Your task to perform on an android device: delete browsing data in the chrome app Image 0: 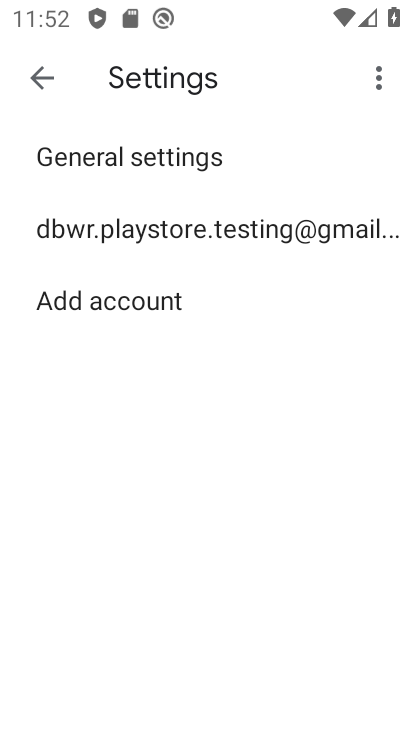
Step 0: press home button
Your task to perform on an android device: delete browsing data in the chrome app Image 1: 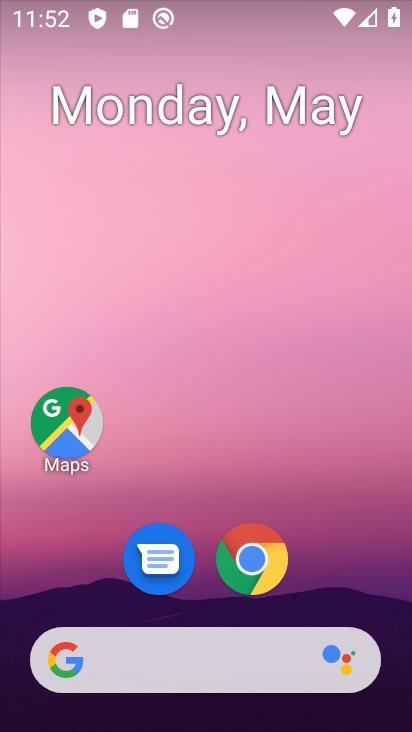
Step 1: click (263, 584)
Your task to perform on an android device: delete browsing data in the chrome app Image 2: 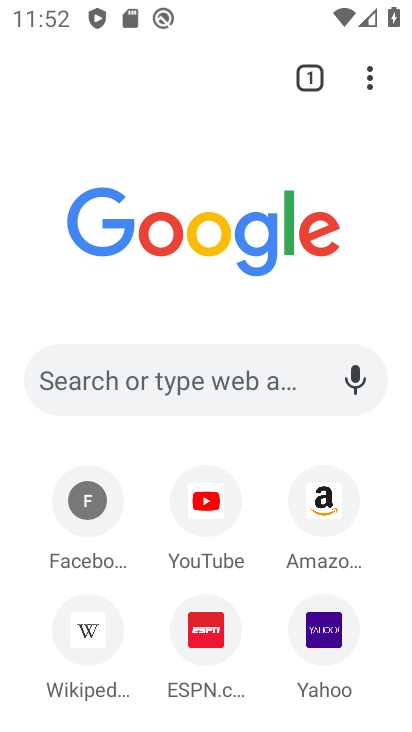
Step 2: drag from (379, 80) to (241, 630)
Your task to perform on an android device: delete browsing data in the chrome app Image 3: 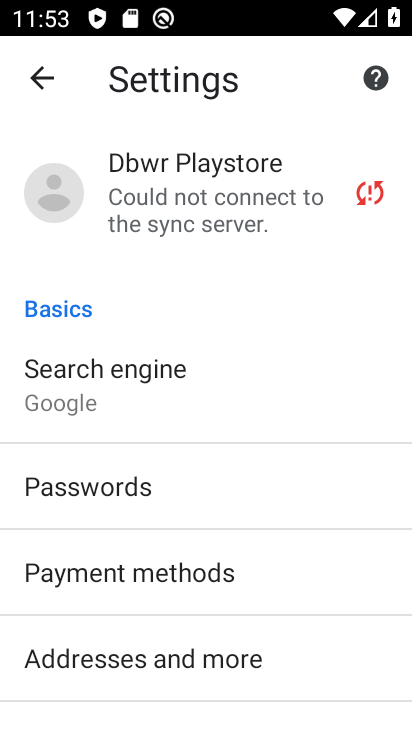
Step 3: drag from (207, 676) to (300, 326)
Your task to perform on an android device: delete browsing data in the chrome app Image 4: 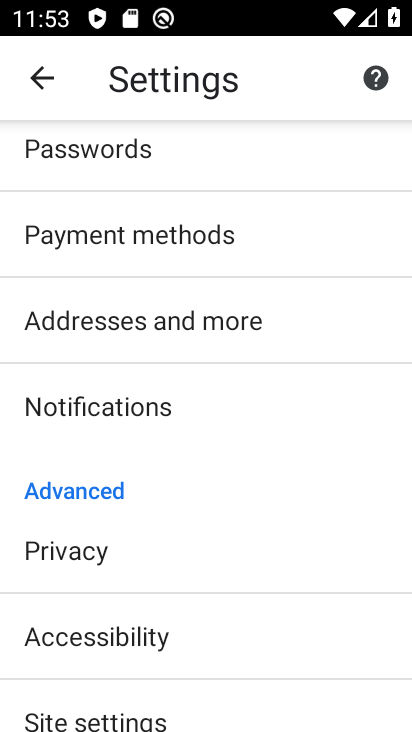
Step 4: click (167, 566)
Your task to perform on an android device: delete browsing data in the chrome app Image 5: 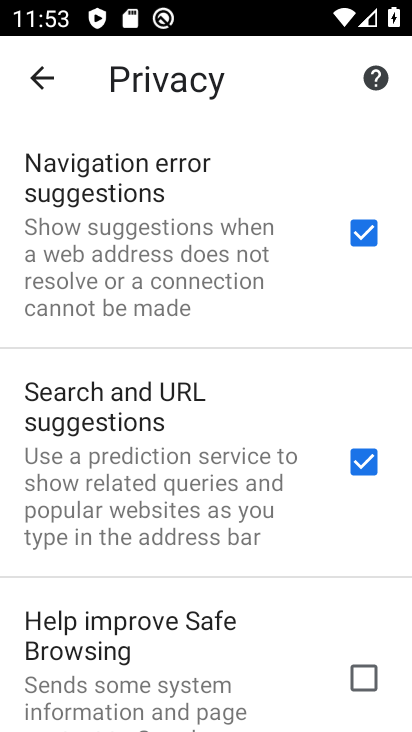
Step 5: drag from (170, 701) to (307, 237)
Your task to perform on an android device: delete browsing data in the chrome app Image 6: 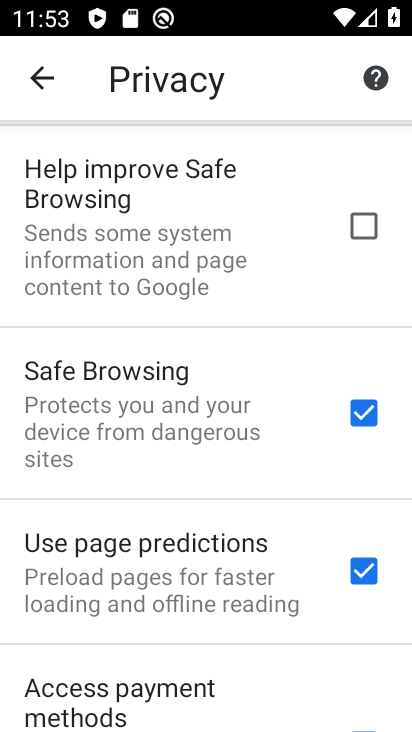
Step 6: drag from (255, 691) to (358, 195)
Your task to perform on an android device: delete browsing data in the chrome app Image 7: 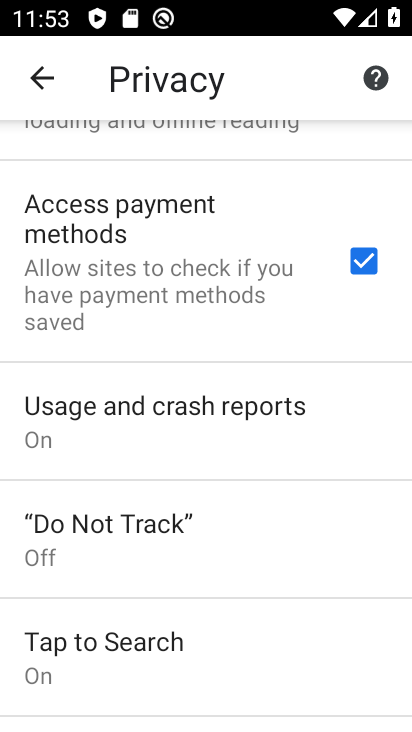
Step 7: drag from (110, 684) to (227, 195)
Your task to perform on an android device: delete browsing data in the chrome app Image 8: 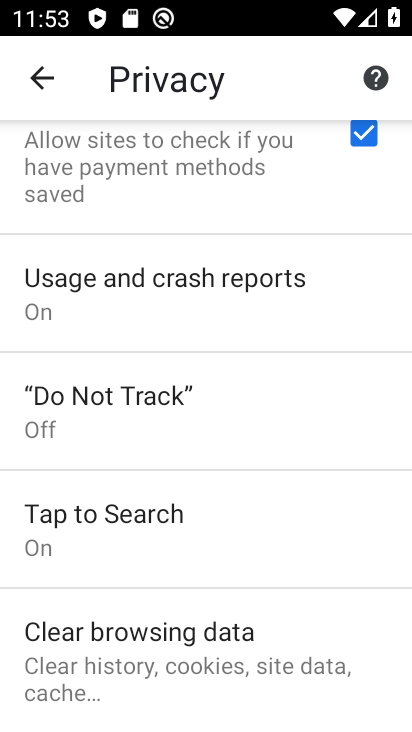
Step 8: click (153, 681)
Your task to perform on an android device: delete browsing data in the chrome app Image 9: 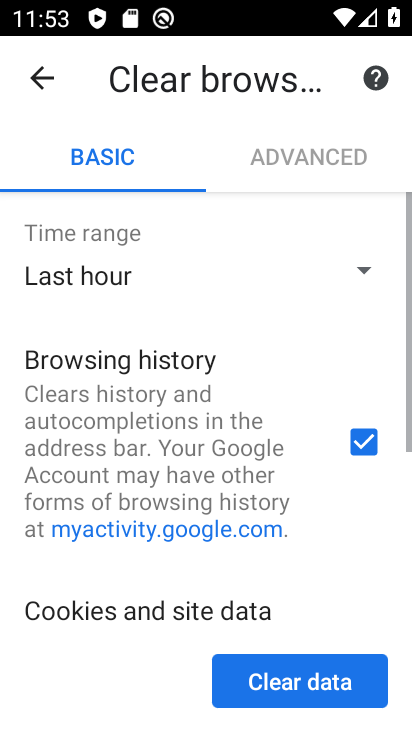
Step 9: drag from (158, 522) to (293, 135)
Your task to perform on an android device: delete browsing data in the chrome app Image 10: 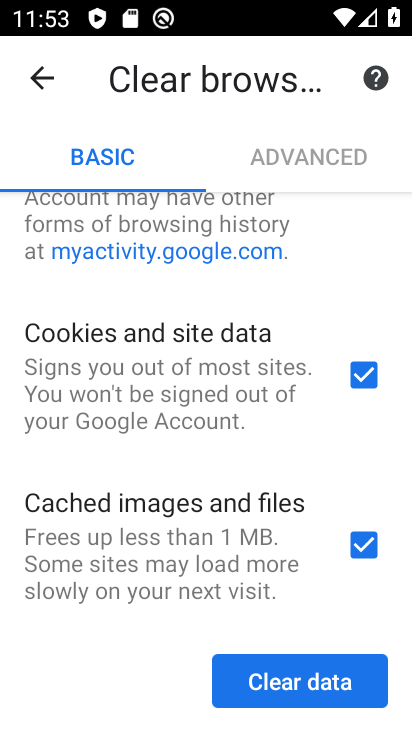
Step 10: drag from (185, 559) to (279, 143)
Your task to perform on an android device: delete browsing data in the chrome app Image 11: 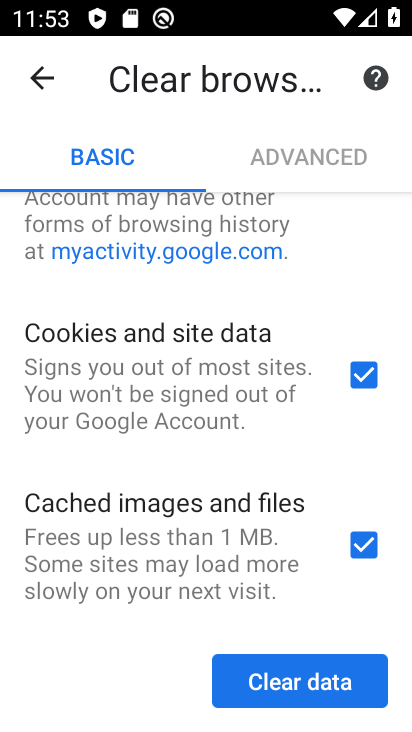
Step 11: click (267, 690)
Your task to perform on an android device: delete browsing data in the chrome app Image 12: 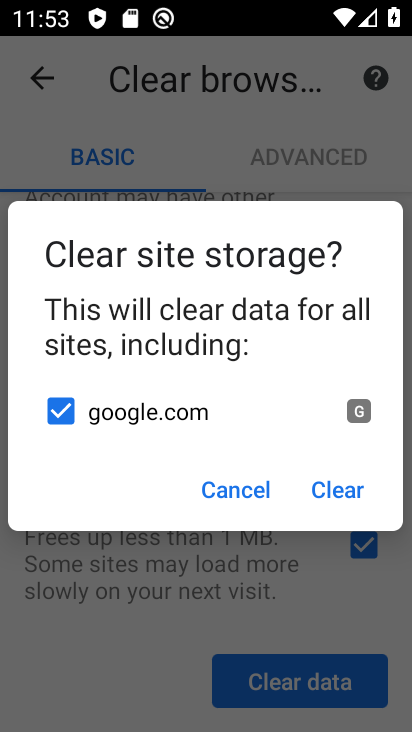
Step 12: click (334, 483)
Your task to perform on an android device: delete browsing data in the chrome app Image 13: 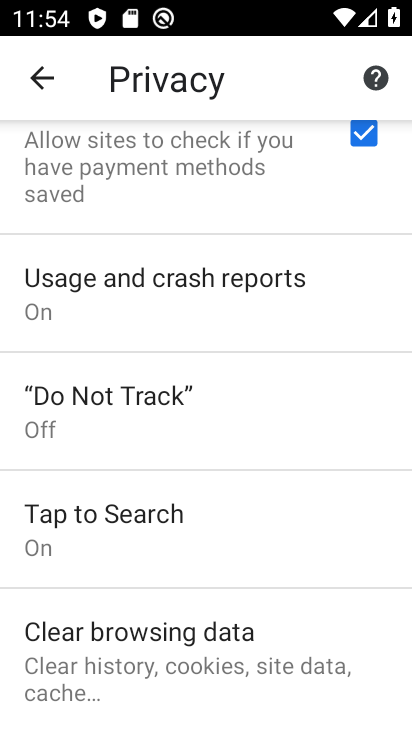
Step 13: task complete